Your task to perform on an android device: Open Chrome and go to settings Image 0: 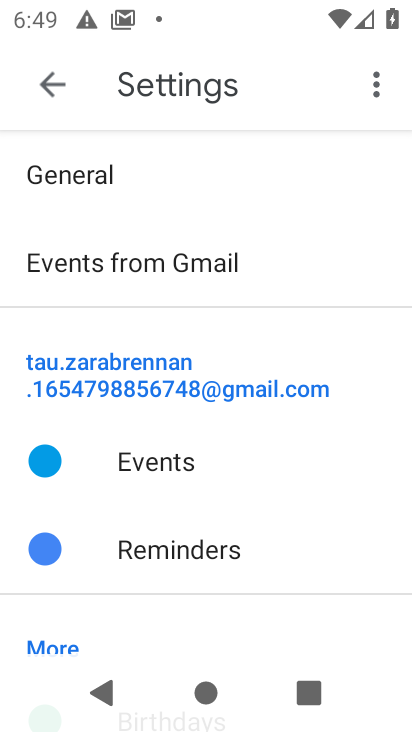
Step 0: task complete